Your task to perform on an android device: Is it going to rain tomorrow? Image 0: 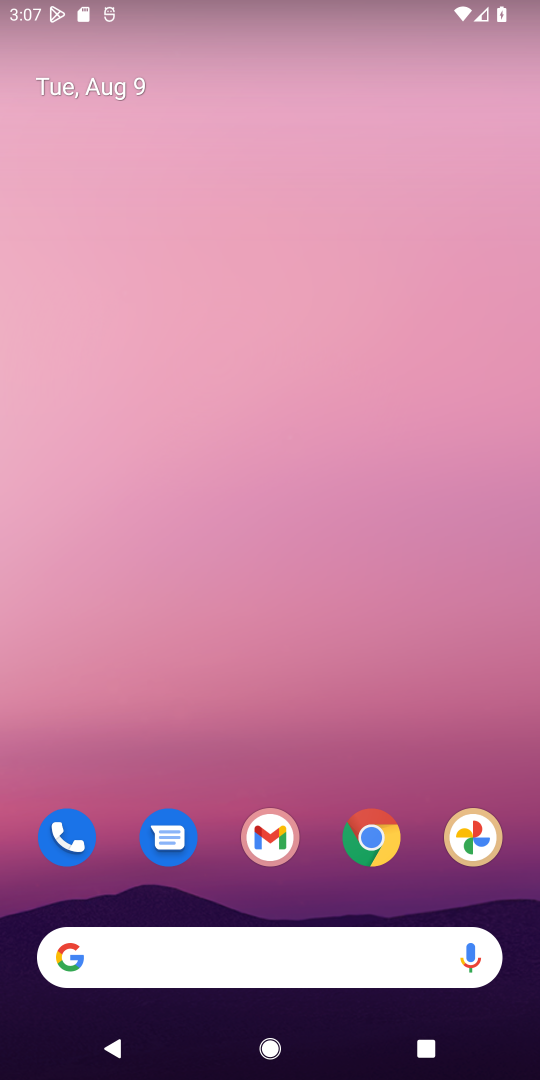
Step 0: drag from (227, 910) to (22, 602)
Your task to perform on an android device: Is it going to rain tomorrow? Image 1: 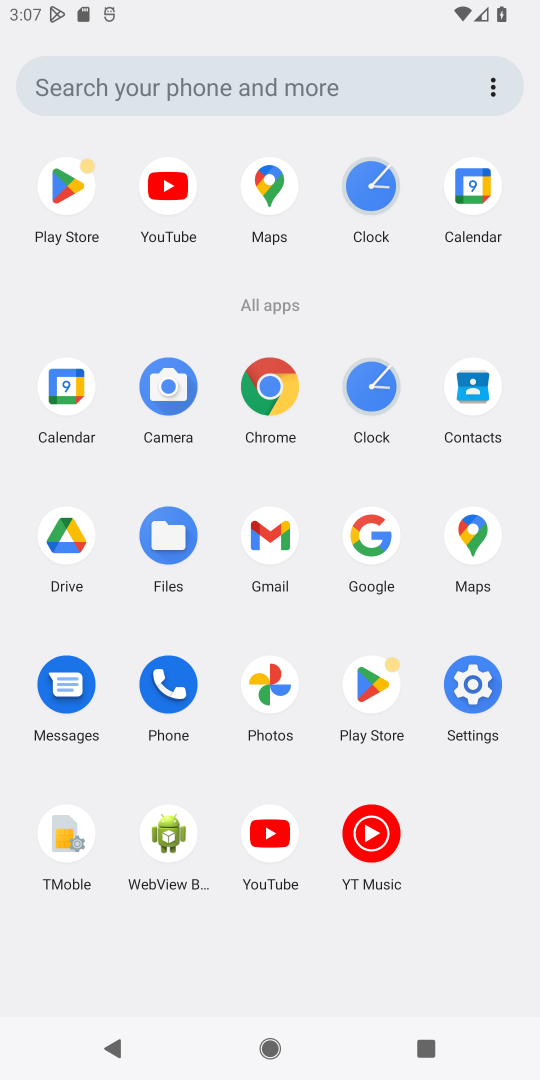
Step 1: click (277, 390)
Your task to perform on an android device: Is it going to rain tomorrow? Image 2: 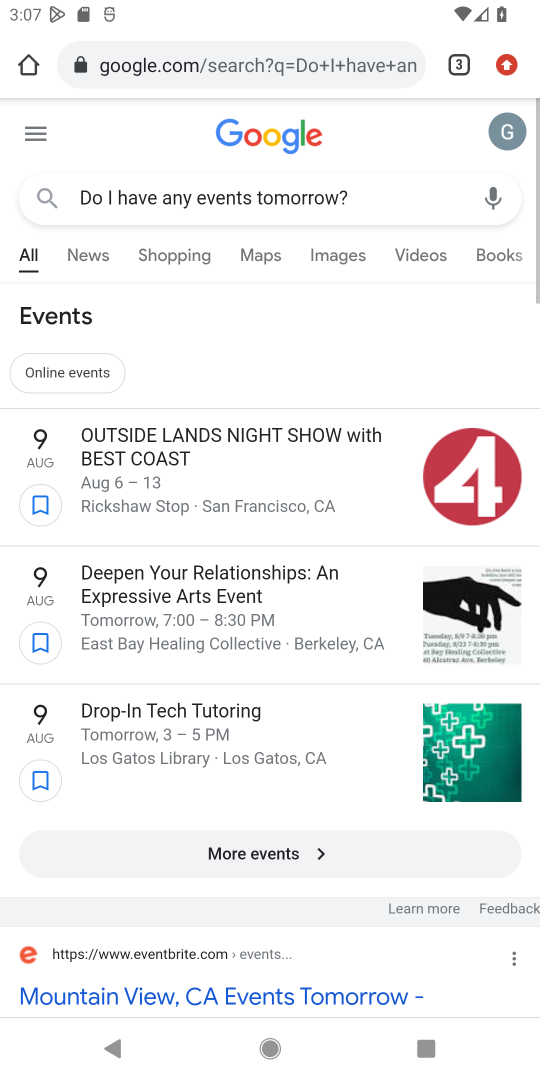
Step 2: click (516, 52)
Your task to perform on an android device: Is it going to rain tomorrow? Image 3: 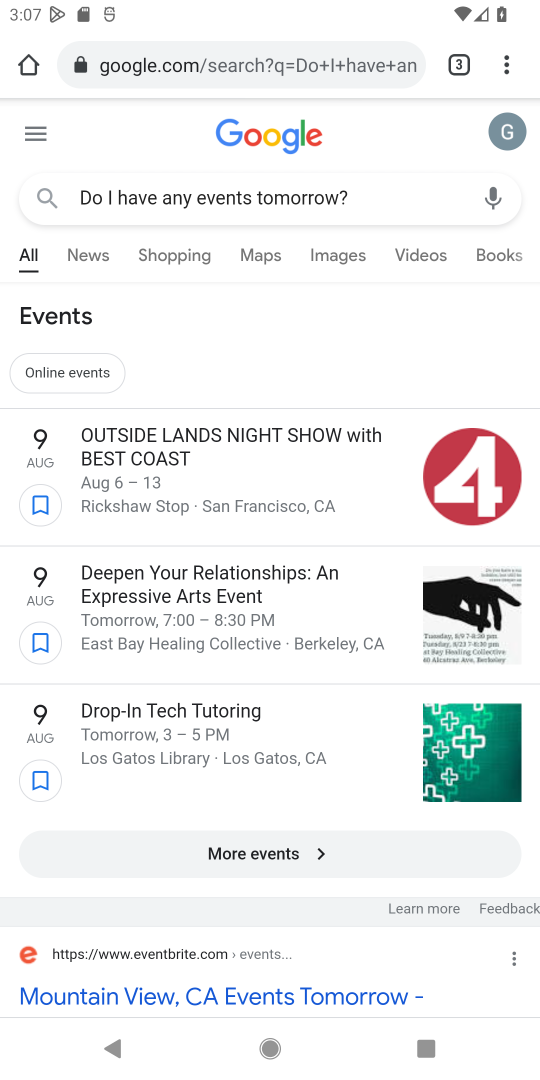
Step 3: click (517, 59)
Your task to perform on an android device: Is it going to rain tomorrow? Image 4: 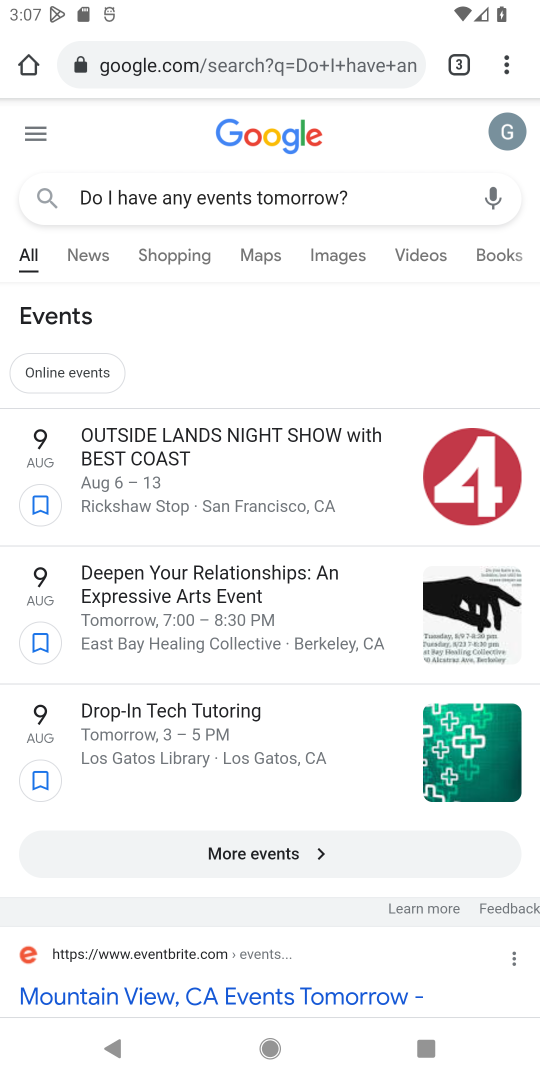
Step 4: click (514, 74)
Your task to perform on an android device: Is it going to rain tomorrow? Image 5: 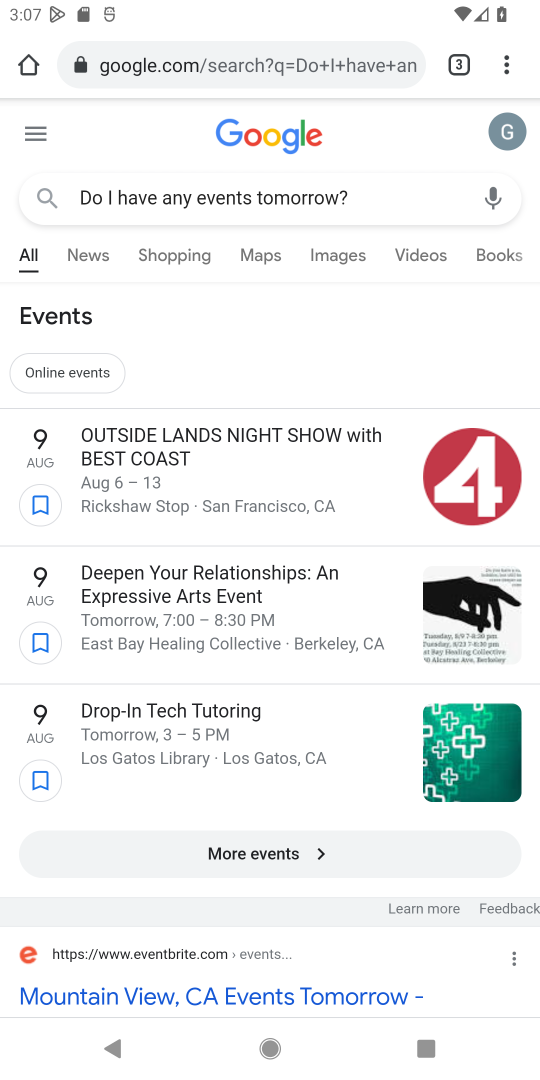
Step 5: click (509, 73)
Your task to perform on an android device: Is it going to rain tomorrow? Image 6: 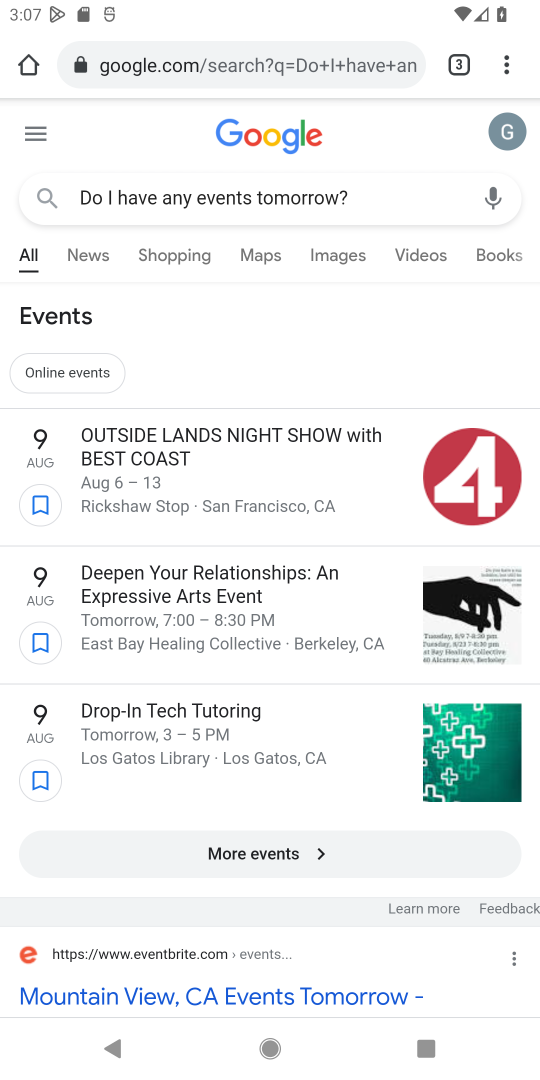
Step 6: click (509, 69)
Your task to perform on an android device: Is it going to rain tomorrow? Image 7: 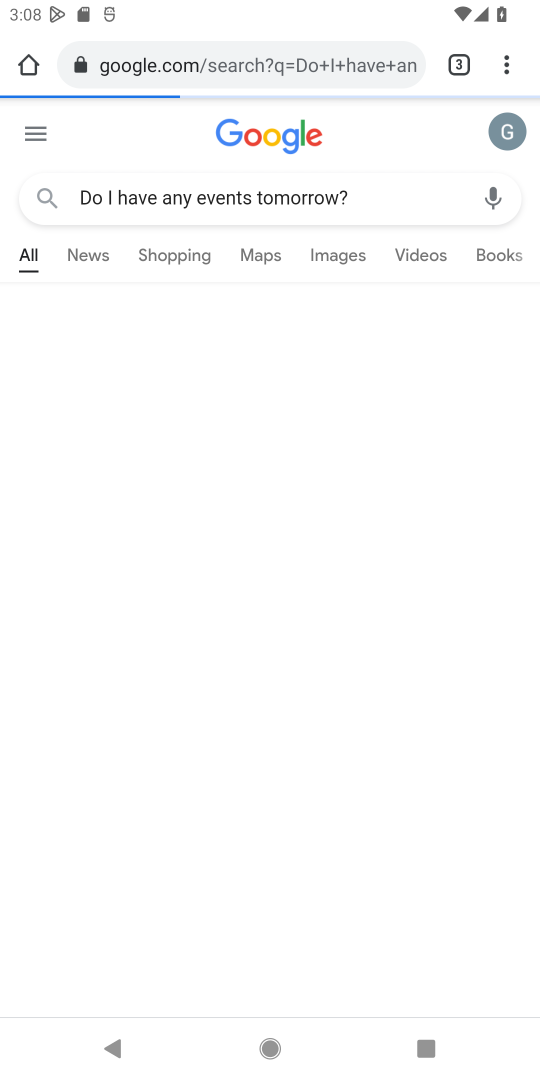
Step 7: click (506, 66)
Your task to perform on an android device: Is it going to rain tomorrow? Image 8: 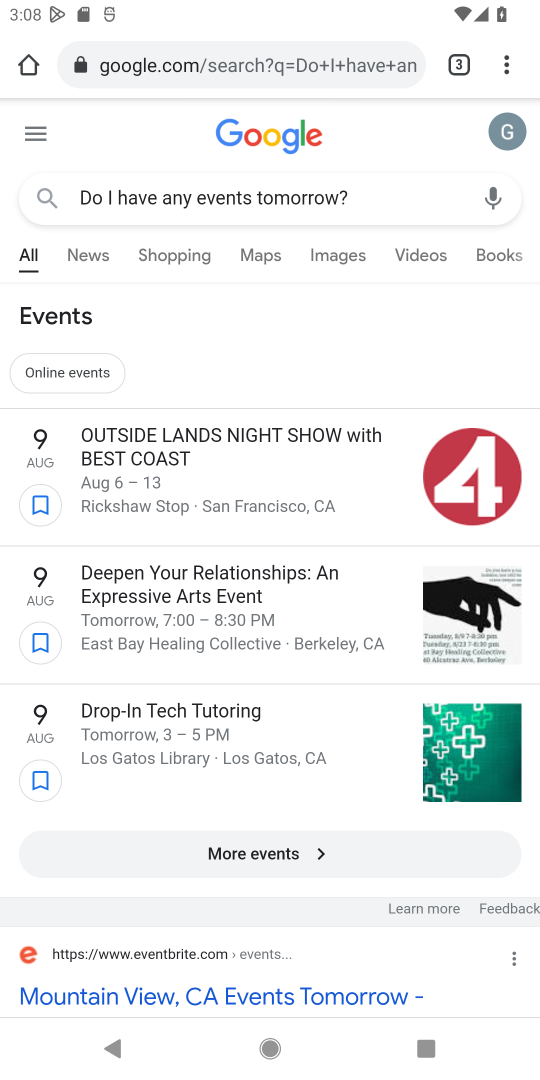
Step 8: click (503, 53)
Your task to perform on an android device: Is it going to rain tomorrow? Image 9: 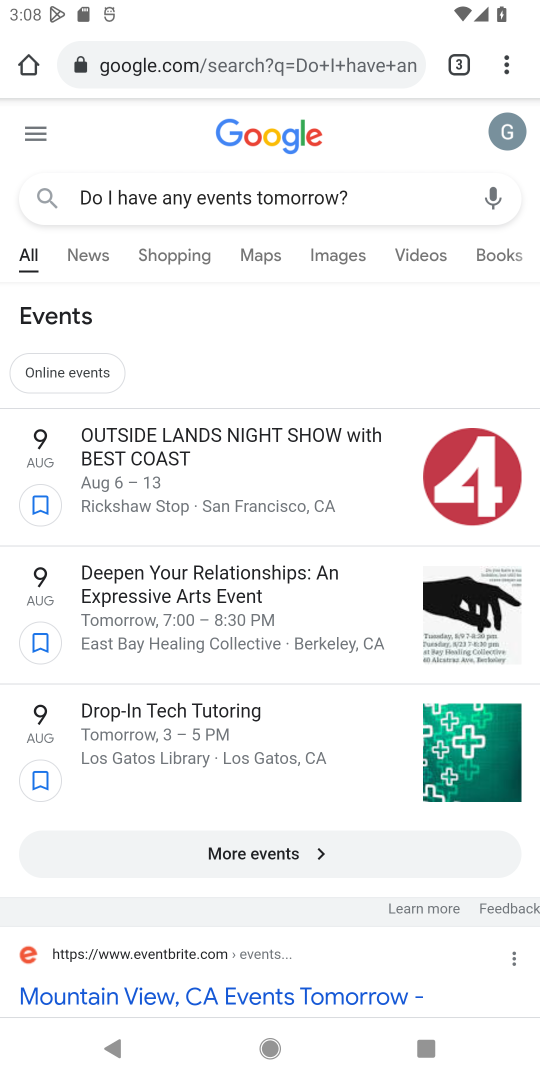
Step 9: click (514, 62)
Your task to perform on an android device: Is it going to rain tomorrow? Image 10: 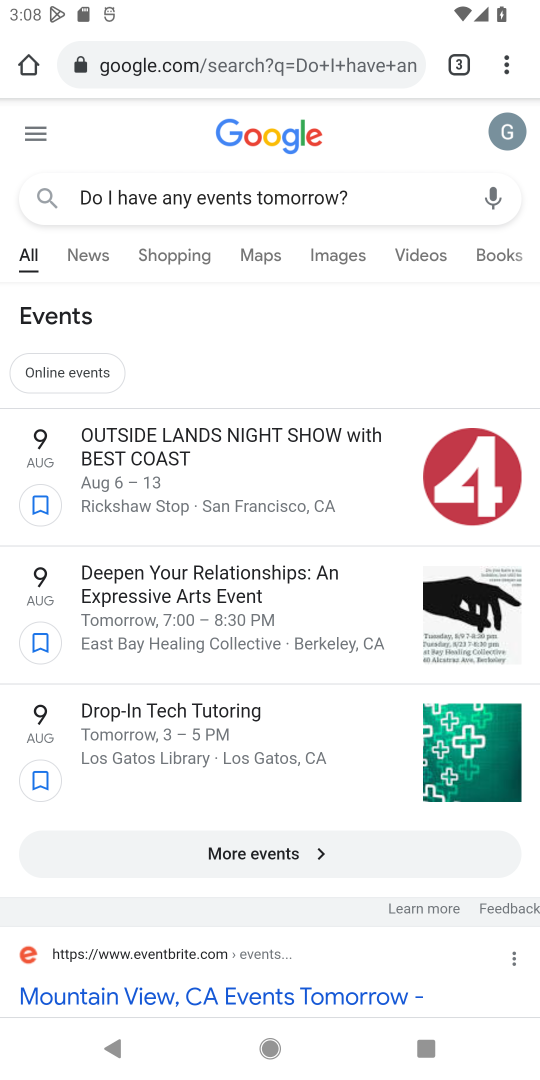
Step 10: click (512, 60)
Your task to perform on an android device: Is it going to rain tomorrow? Image 11: 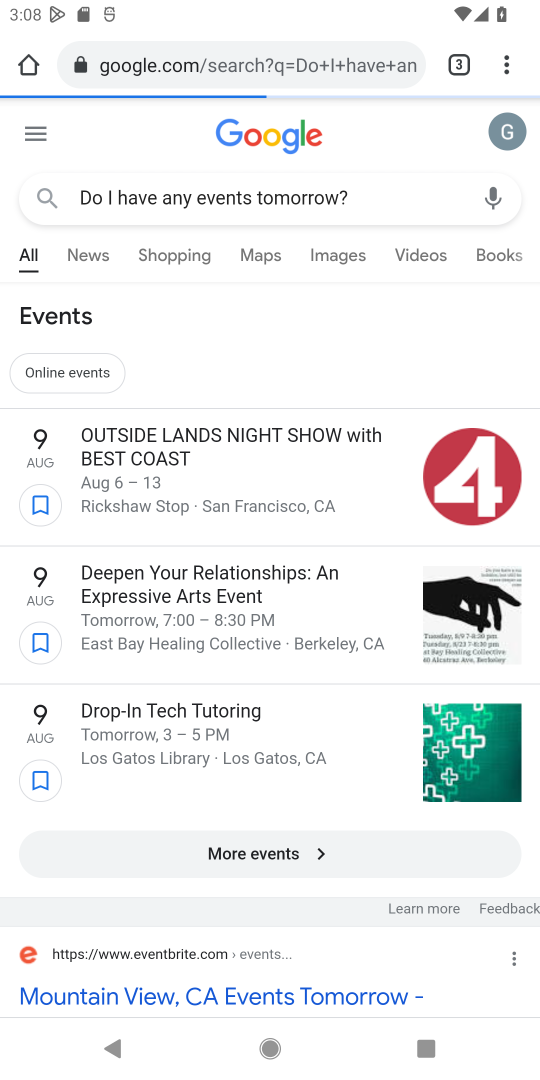
Step 11: click (512, 60)
Your task to perform on an android device: Is it going to rain tomorrow? Image 12: 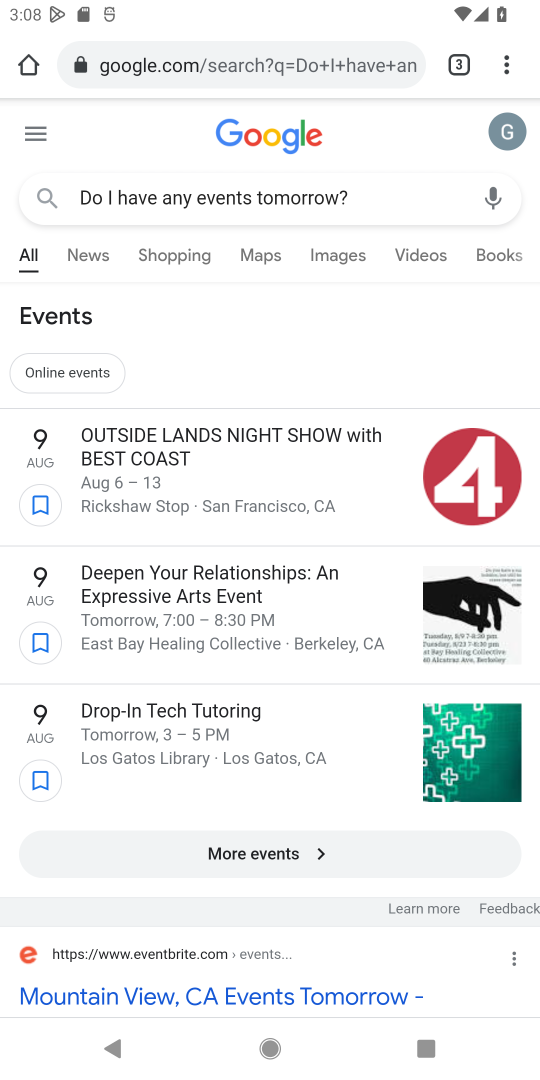
Step 12: click (483, 60)
Your task to perform on an android device: Is it going to rain tomorrow? Image 13: 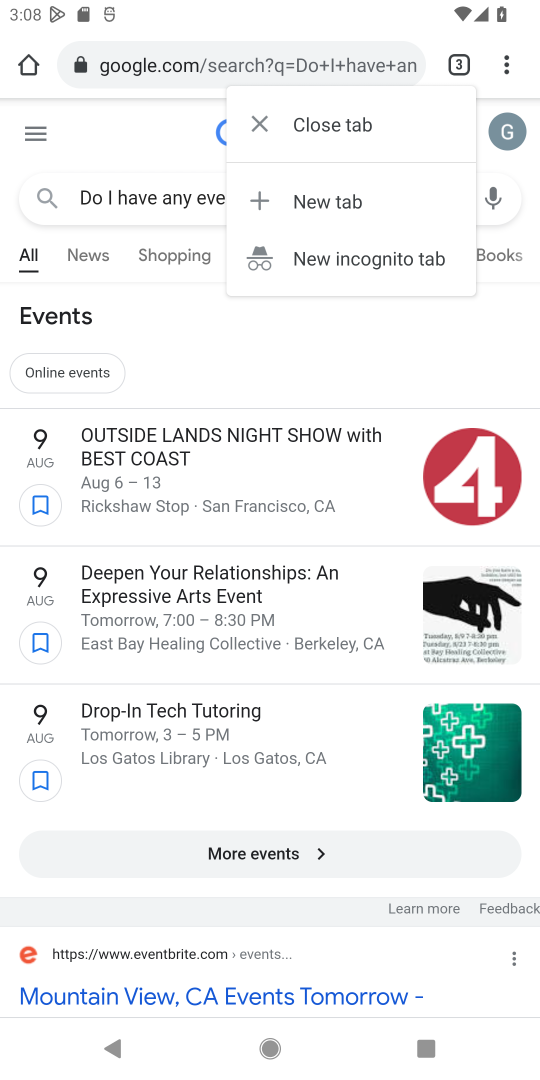
Step 13: click (377, 199)
Your task to perform on an android device: Is it going to rain tomorrow? Image 14: 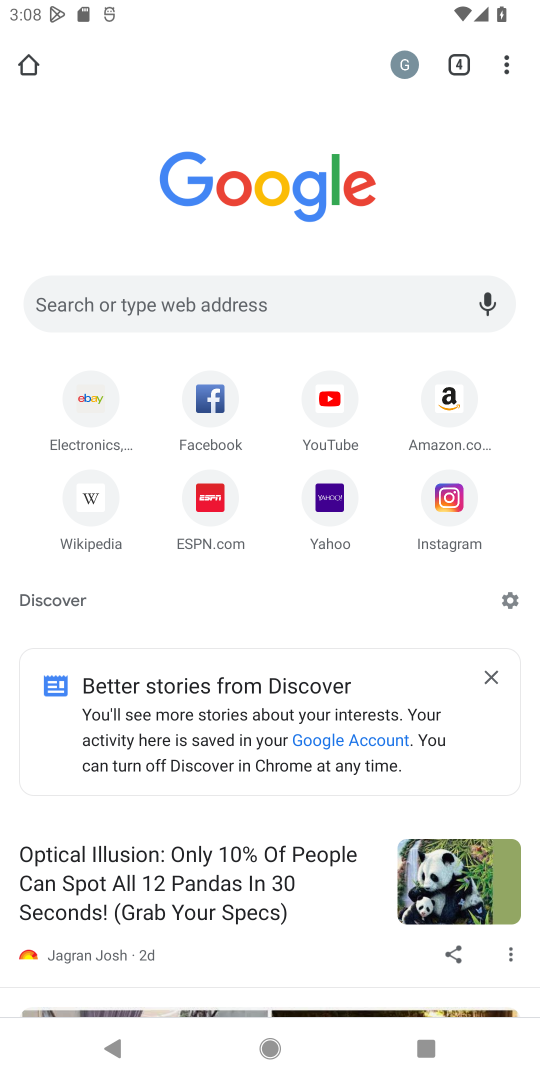
Step 14: click (266, 299)
Your task to perform on an android device: Is it going to rain tomorrow? Image 15: 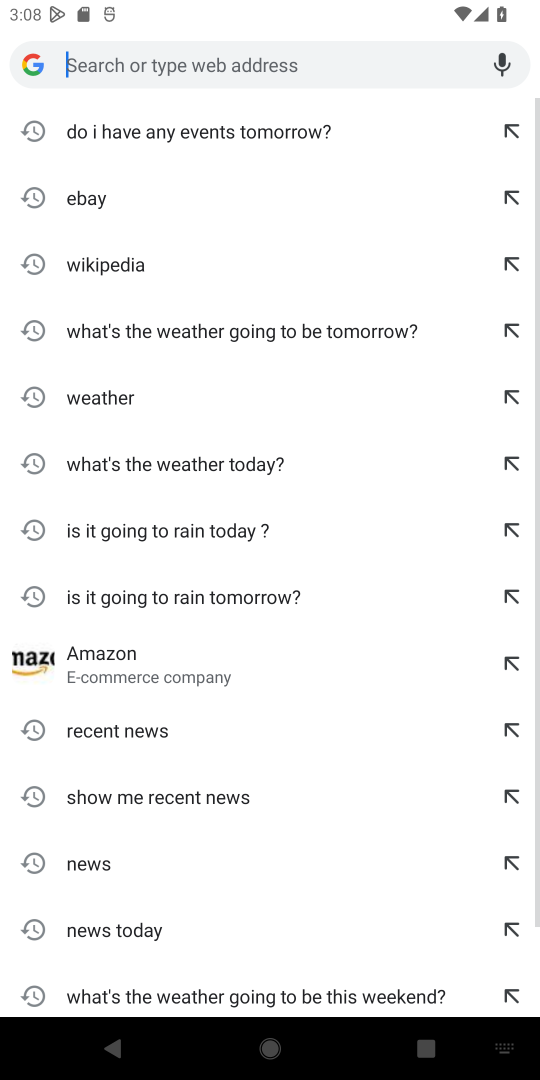
Step 15: type "Is it going to rain tomorrow? "
Your task to perform on an android device: Is it going to rain tomorrow? Image 16: 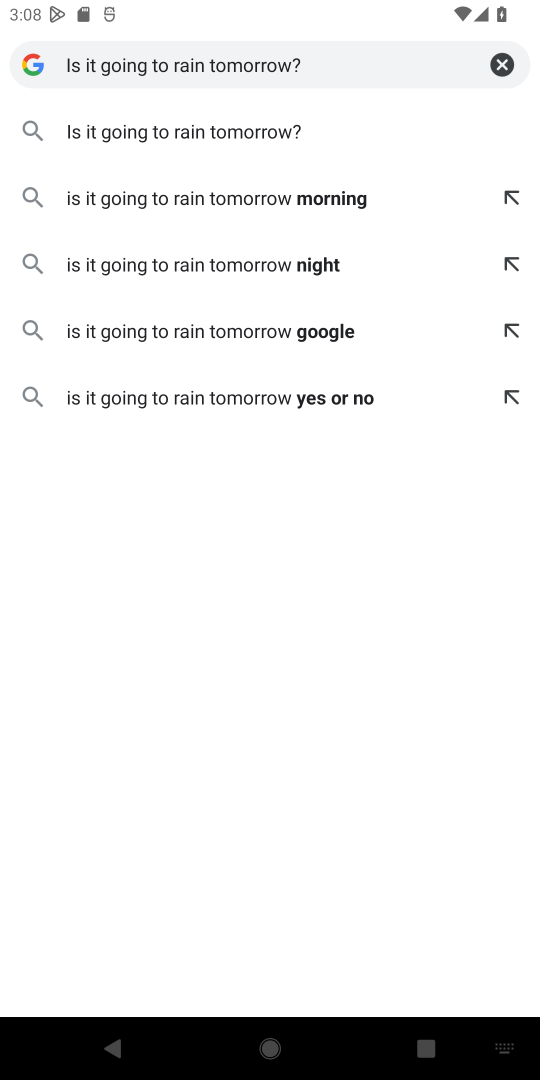
Step 16: click (182, 132)
Your task to perform on an android device: Is it going to rain tomorrow? Image 17: 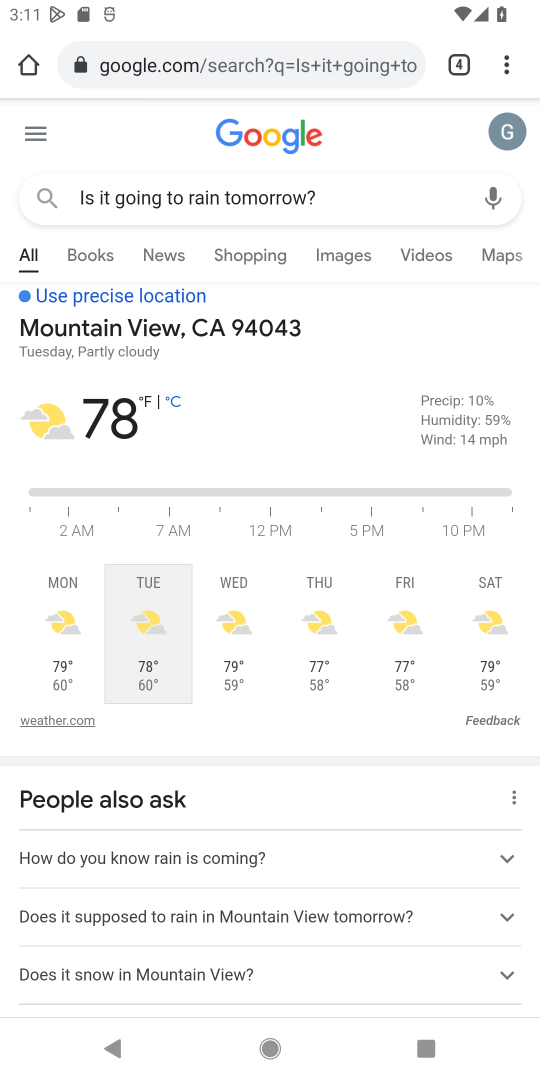
Step 17: task complete